Your task to perform on an android device: make emails show in primary in the gmail app Image 0: 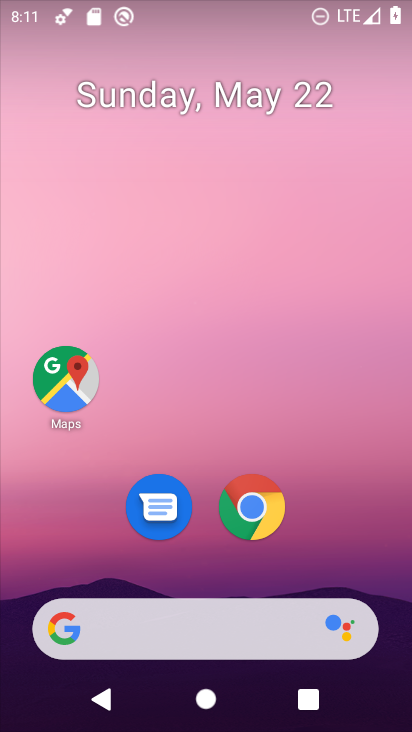
Step 0: drag from (240, 705) to (137, 6)
Your task to perform on an android device: make emails show in primary in the gmail app Image 1: 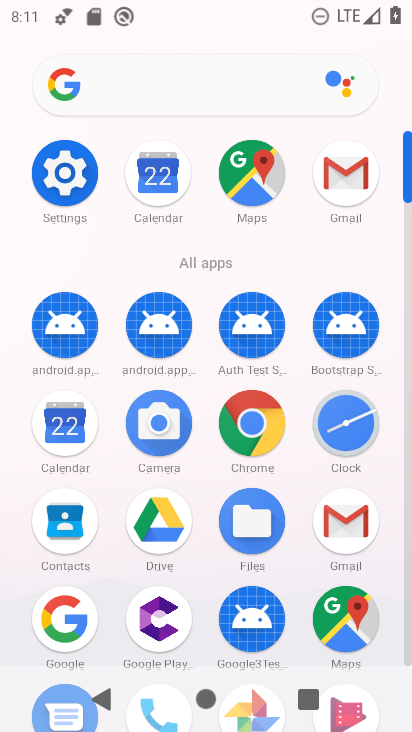
Step 1: click (349, 179)
Your task to perform on an android device: make emails show in primary in the gmail app Image 2: 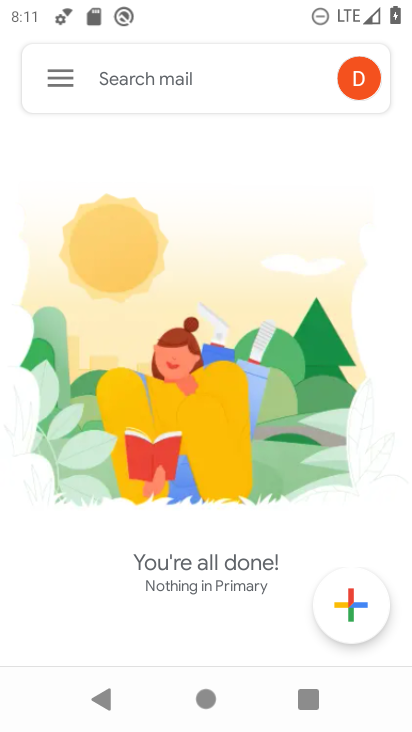
Step 2: click (57, 69)
Your task to perform on an android device: make emails show in primary in the gmail app Image 3: 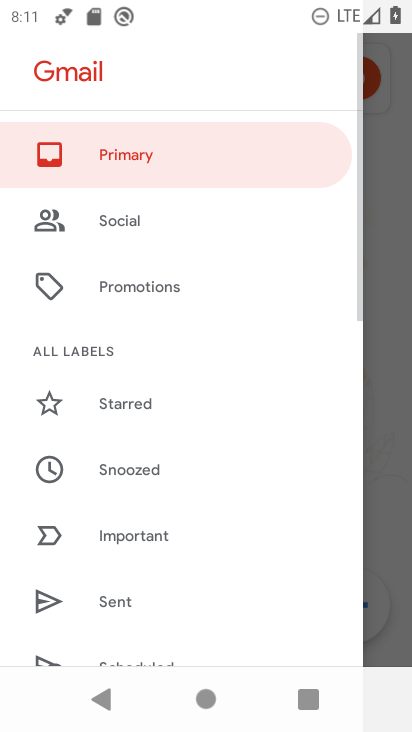
Step 3: drag from (107, 517) to (45, 18)
Your task to perform on an android device: make emails show in primary in the gmail app Image 4: 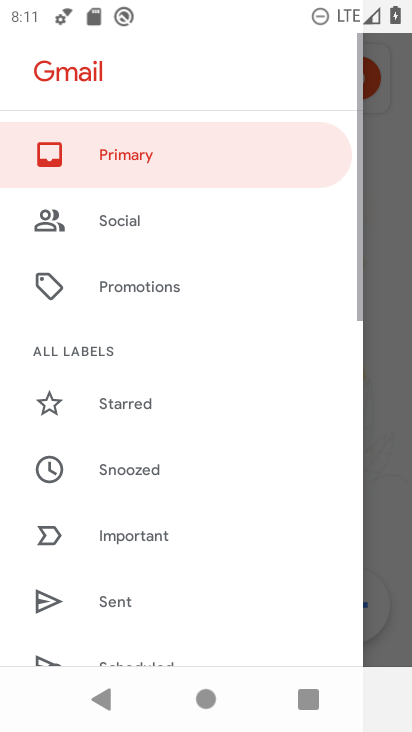
Step 4: drag from (172, 588) to (186, 141)
Your task to perform on an android device: make emails show in primary in the gmail app Image 5: 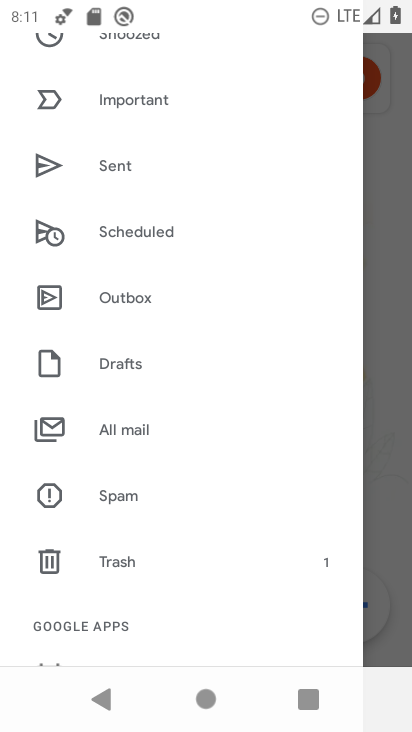
Step 5: drag from (162, 614) to (142, 32)
Your task to perform on an android device: make emails show in primary in the gmail app Image 6: 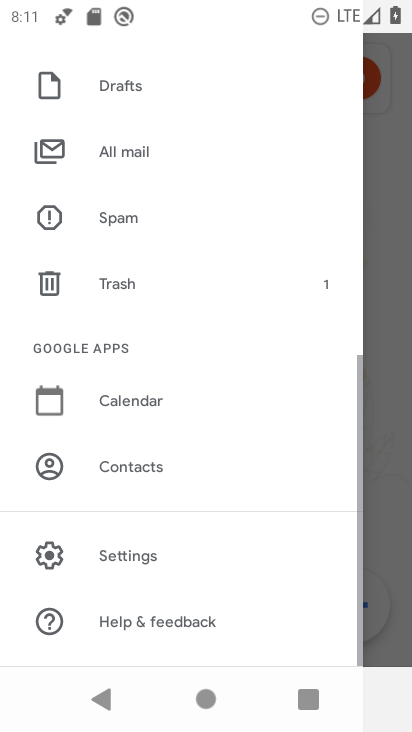
Step 6: click (134, 544)
Your task to perform on an android device: make emails show in primary in the gmail app Image 7: 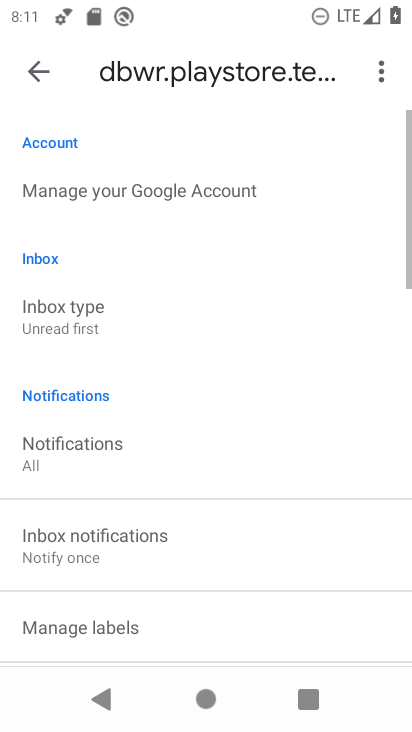
Step 7: click (60, 334)
Your task to perform on an android device: make emails show in primary in the gmail app Image 8: 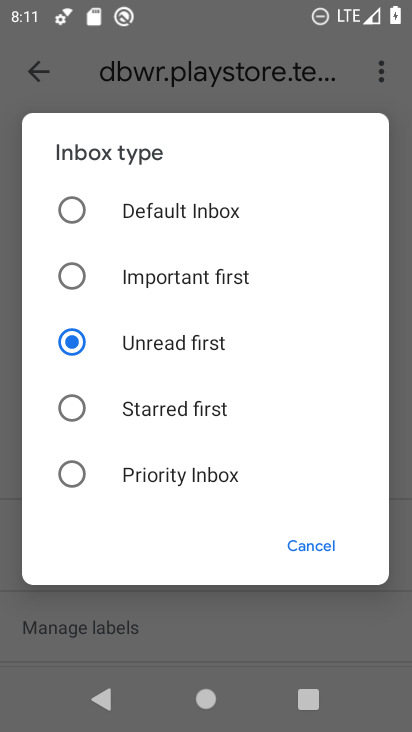
Step 8: click (160, 206)
Your task to perform on an android device: make emails show in primary in the gmail app Image 9: 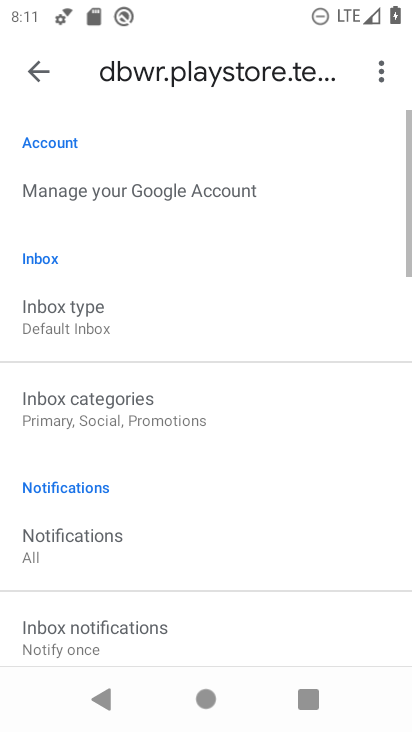
Step 9: click (104, 419)
Your task to perform on an android device: make emails show in primary in the gmail app Image 10: 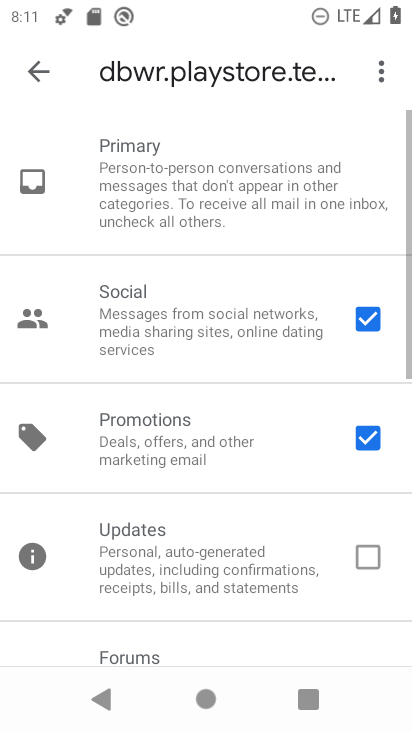
Step 10: click (371, 336)
Your task to perform on an android device: make emails show in primary in the gmail app Image 11: 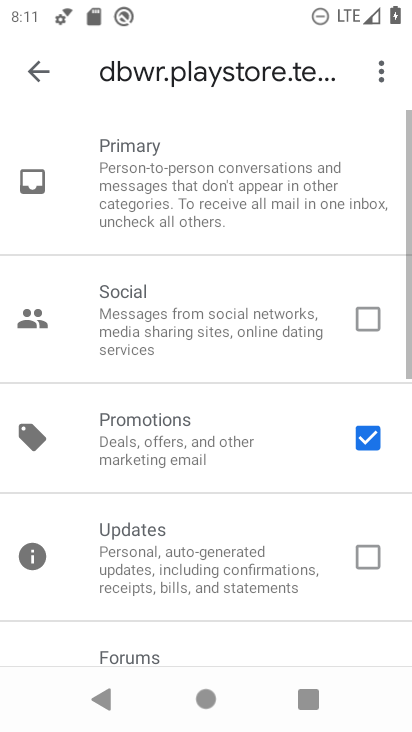
Step 11: click (358, 453)
Your task to perform on an android device: make emails show in primary in the gmail app Image 12: 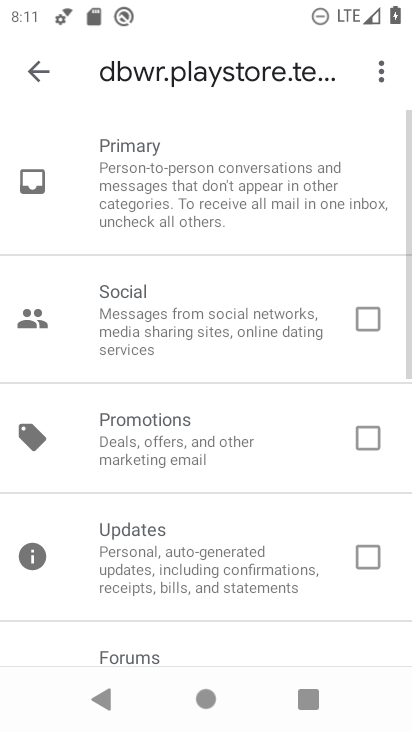
Step 12: task complete